Your task to perform on an android device: find snoozed emails in the gmail app Image 0: 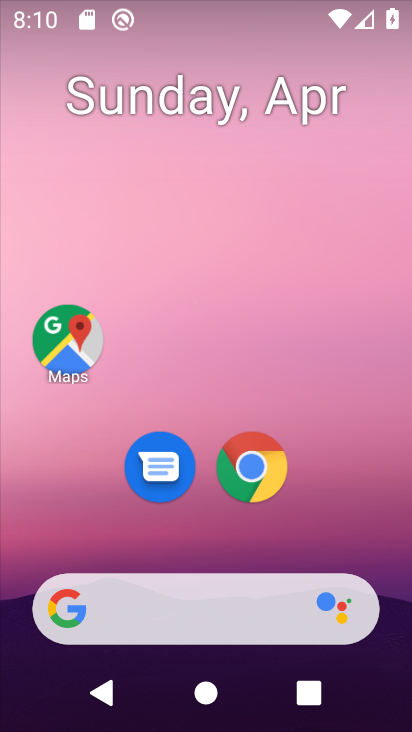
Step 0: drag from (308, 528) to (262, 83)
Your task to perform on an android device: find snoozed emails in the gmail app Image 1: 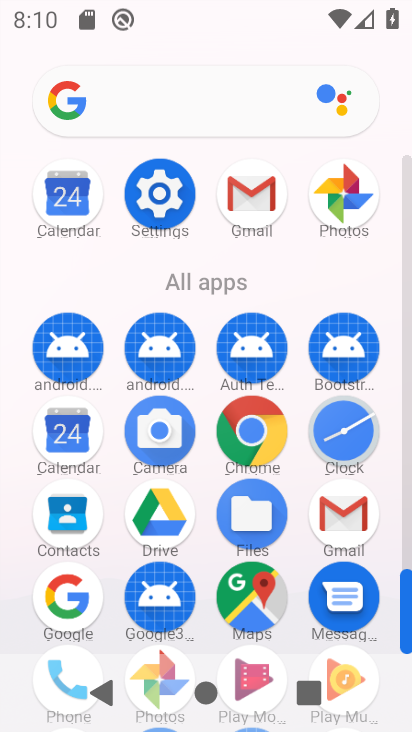
Step 1: click (258, 192)
Your task to perform on an android device: find snoozed emails in the gmail app Image 2: 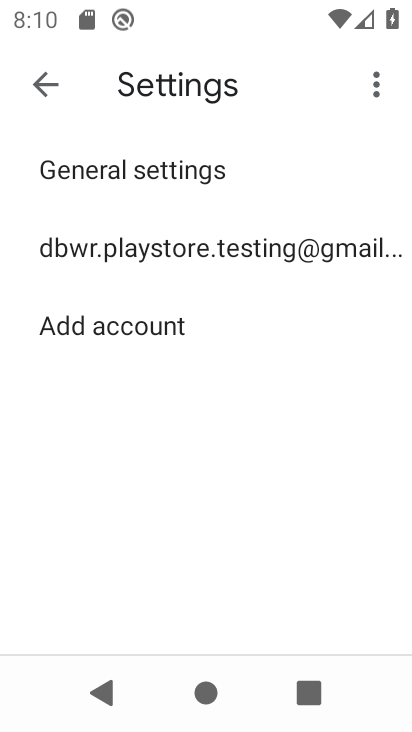
Step 2: click (42, 86)
Your task to perform on an android device: find snoozed emails in the gmail app Image 3: 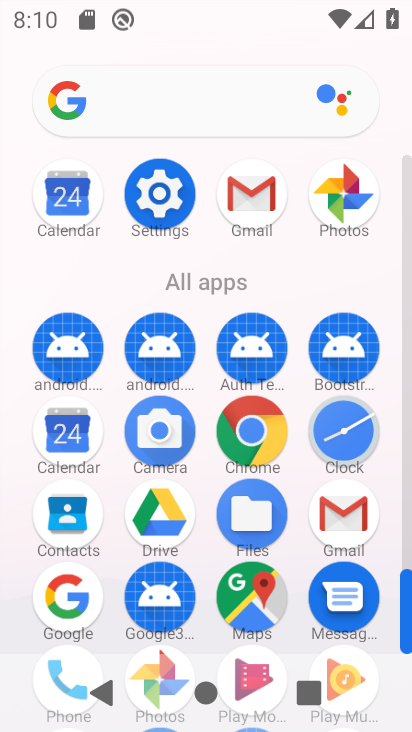
Step 3: click (235, 206)
Your task to perform on an android device: find snoozed emails in the gmail app Image 4: 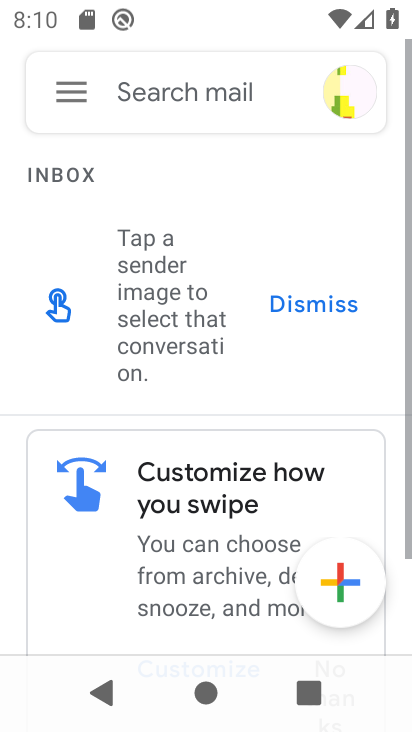
Step 4: click (73, 100)
Your task to perform on an android device: find snoozed emails in the gmail app Image 5: 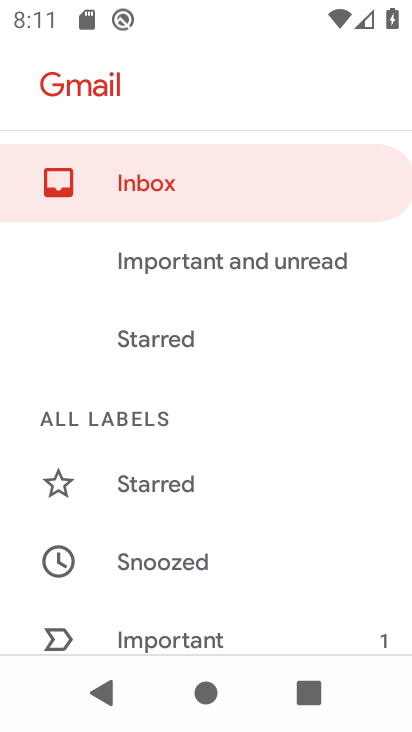
Step 5: click (141, 555)
Your task to perform on an android device: find snoozed emails in the gmail app Image 6: 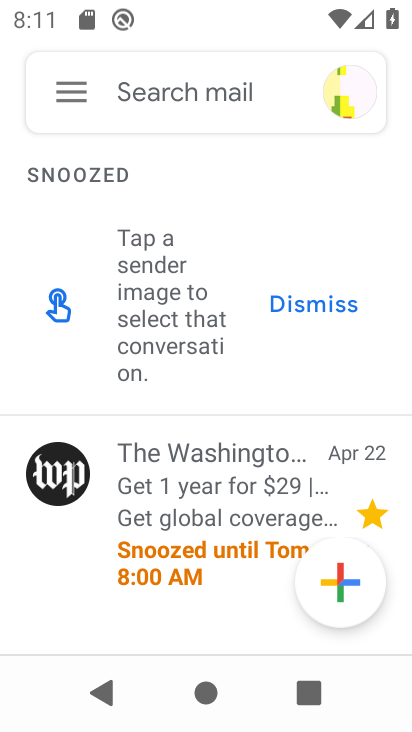
Step 6: task complete